Your task to perform on an android device: turn off wifi Image 0: 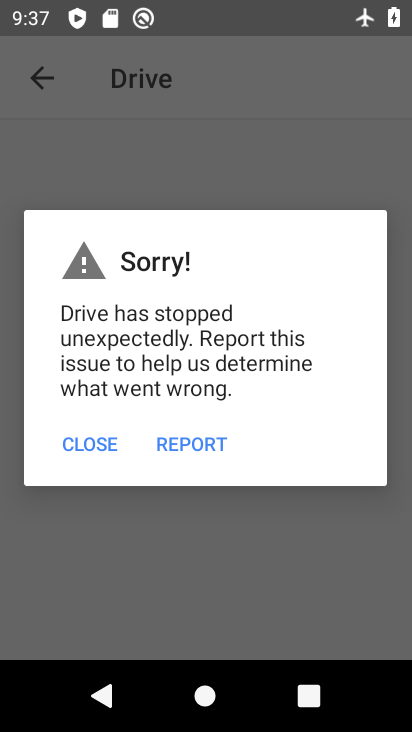
Step 0: drag from (393, 707) to (352, 436)
Your task to perform on an android device: turn off wifi Image 1: 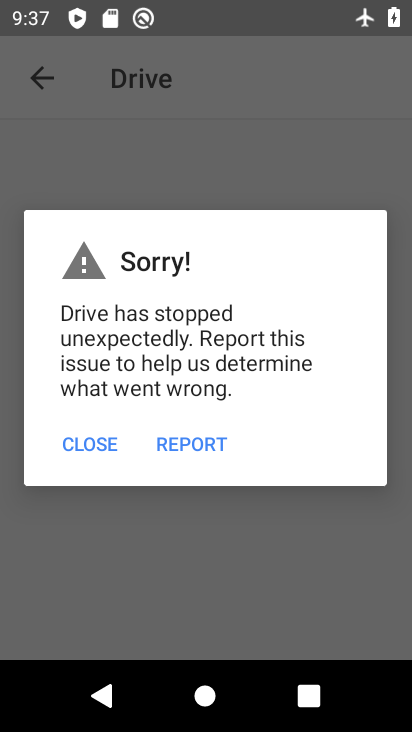
Step 1: press home button
Your task to perform on an android device: turn off wifi Image 2: 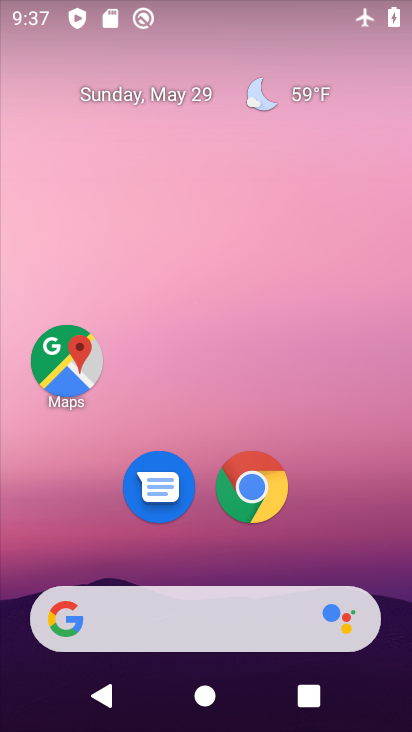
Step 2: drag from (392, 690) to (306, 55)
Your task to perform on an android device: turn off wifi Image 3: 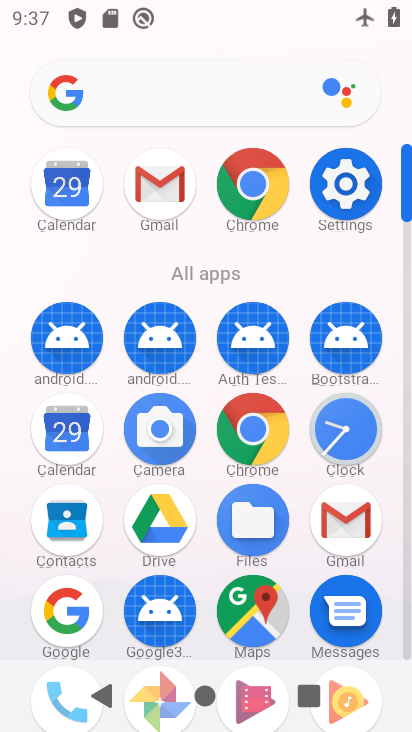
Step 3: click (327, 192)
Your task to perform on an android device: turn off wifi Image 4: 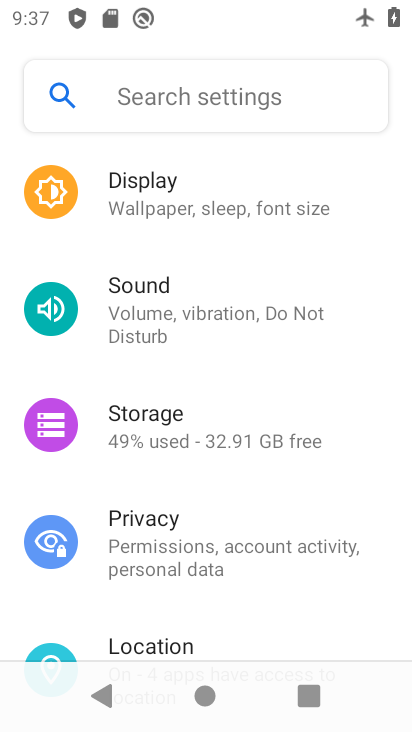
Step 4: drag from (329, 173) to (333, 654)
Your task to perform on an android device: turn off wifi Image 5: 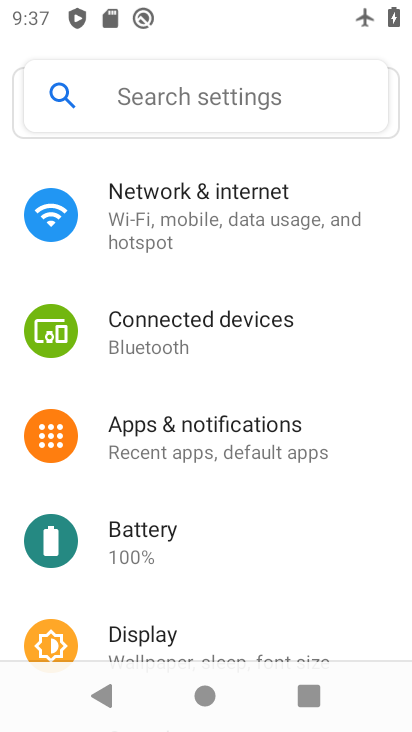
Step 5: click (197, 221)
Your task to perform on an android device: turn off wifi Image 6: 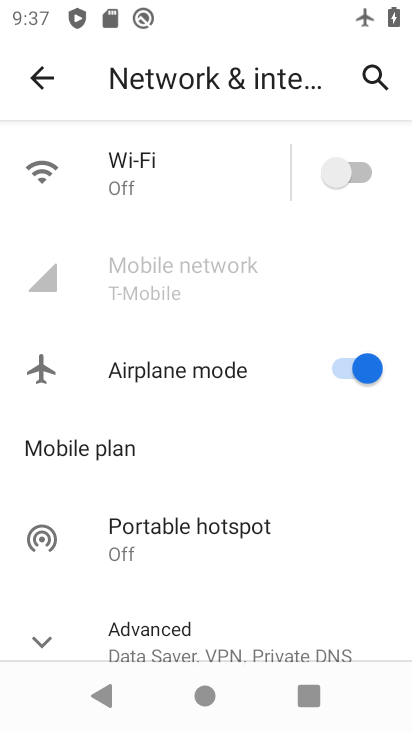
Step 6: task complete